Your task to perform on an android device: turn on improve location accuracy Image 0: 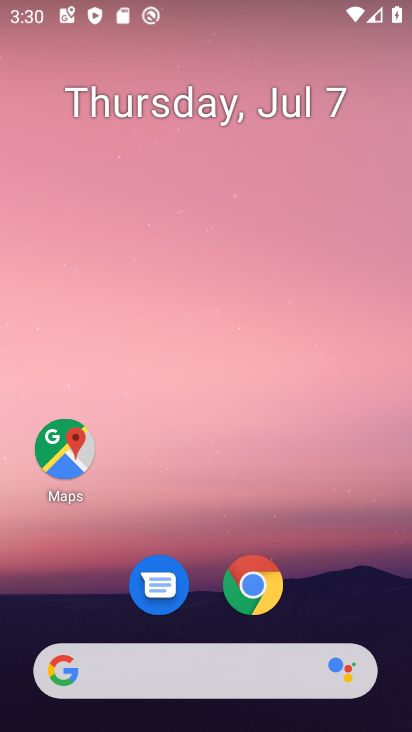
Step 0: drag from (204, 520) to (230, 14)
Your task to perform on an android device: turn on improve location accuracy Image 1: 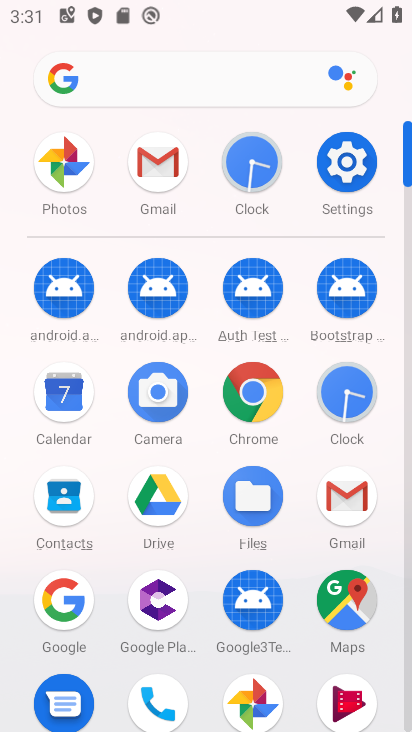
Step 1: click (332, 171)
Your task to perform on an android device: turn on improve location accuracy Image 2: 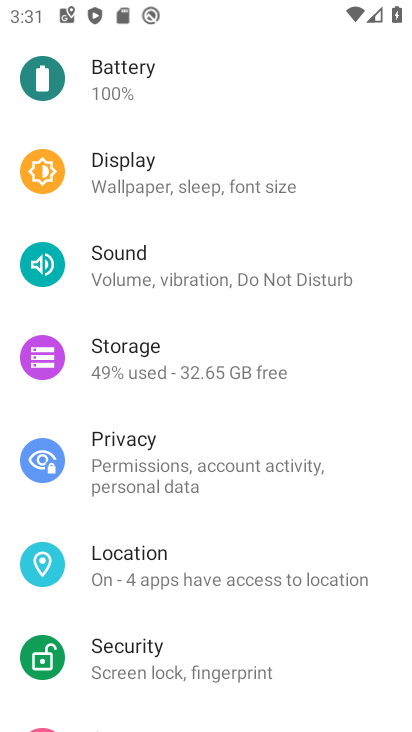
Step 2: click (236, 568)
Your task to perform on an android device: turn on improve location accuracy Image 3: 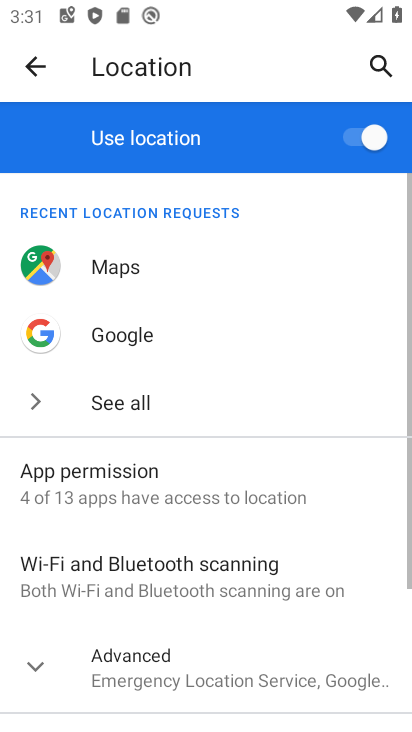
Step 3: click (37, 657)
Your task to perform on an android device: turn on improve location accuracy Image 4: 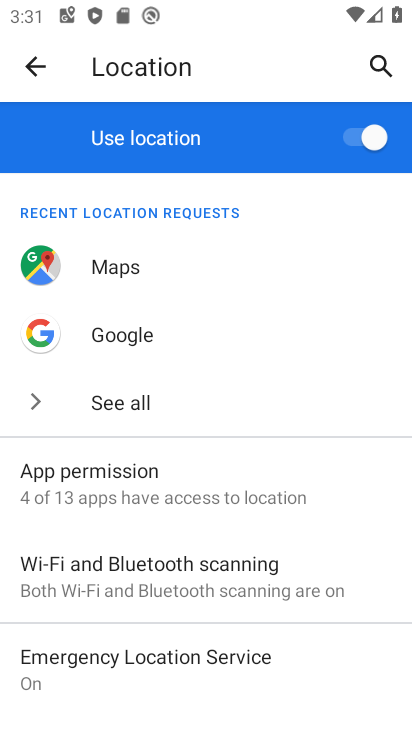
Step 4: drag from (333, 667) to (355, 526)
Your task to perform on an android device: turn on improve location accuracy Image 5: 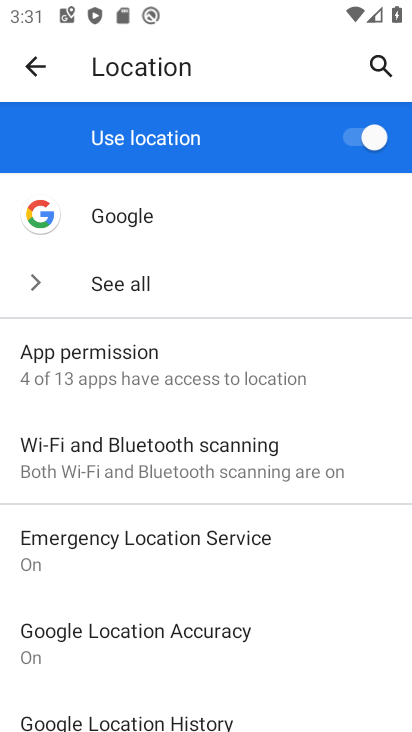
Step 5: click (62, 631)
Your task to perform on an android device: turn on improve location accuracy Image 6: 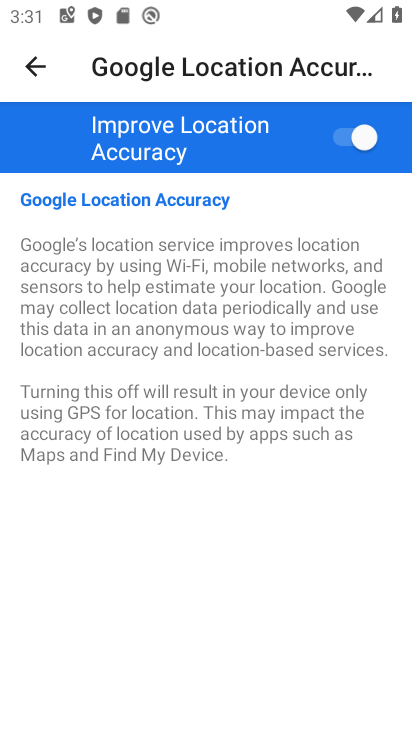
Step 6: task complete